Your task to perform on an android device: open app "PUBG MOBILE" (install if not already installed) Image 0: 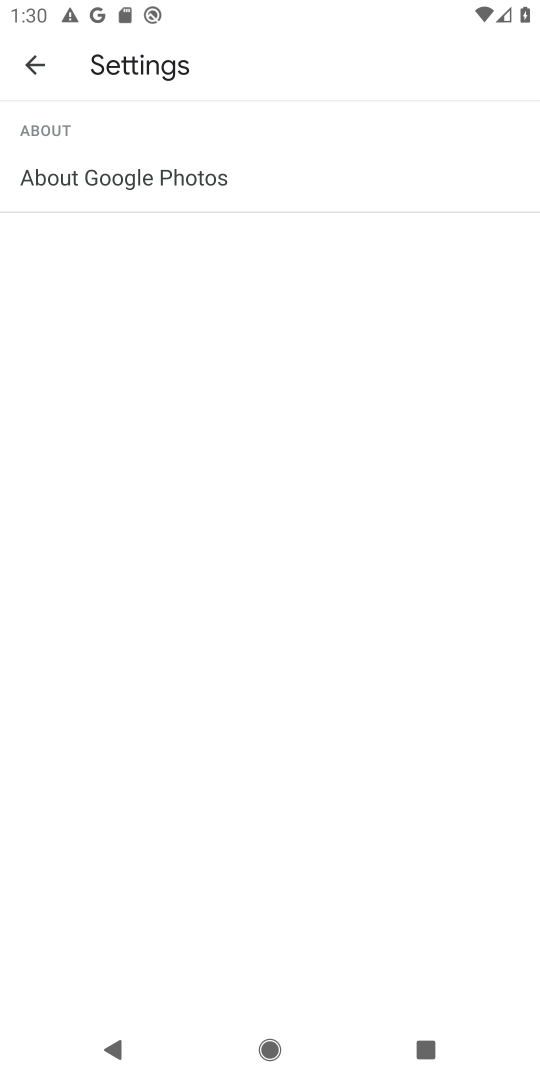
Step 0: press home button
Your task to perform on an android device: open app "PUBG MOBILE" (install if not already installed) Image 1: 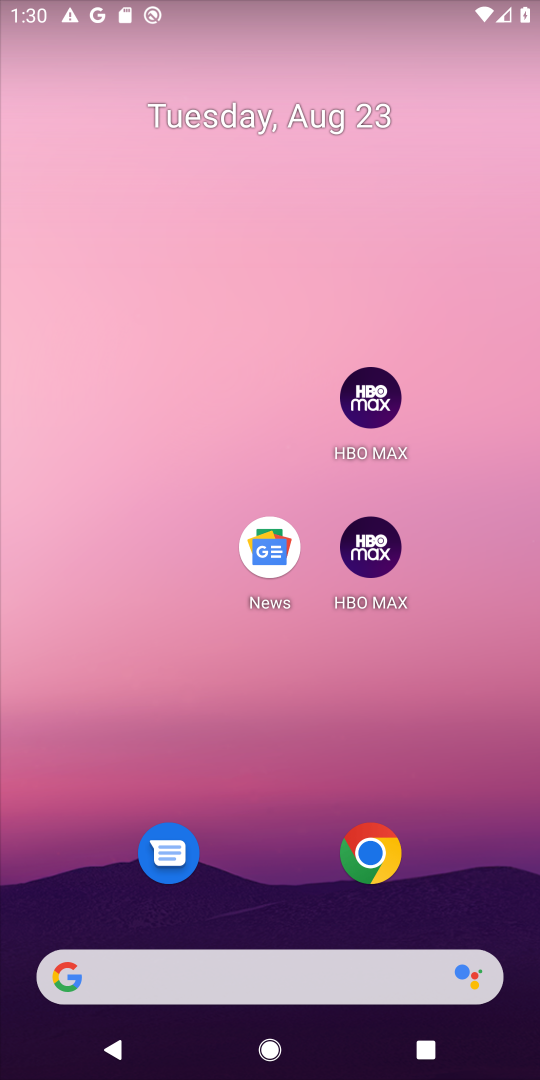
Step 1: drag from (518, 951) to (483, 221)
Your task to perform on an android device: open app "PUBG MOBILE" (install if not already installed) Image 2: 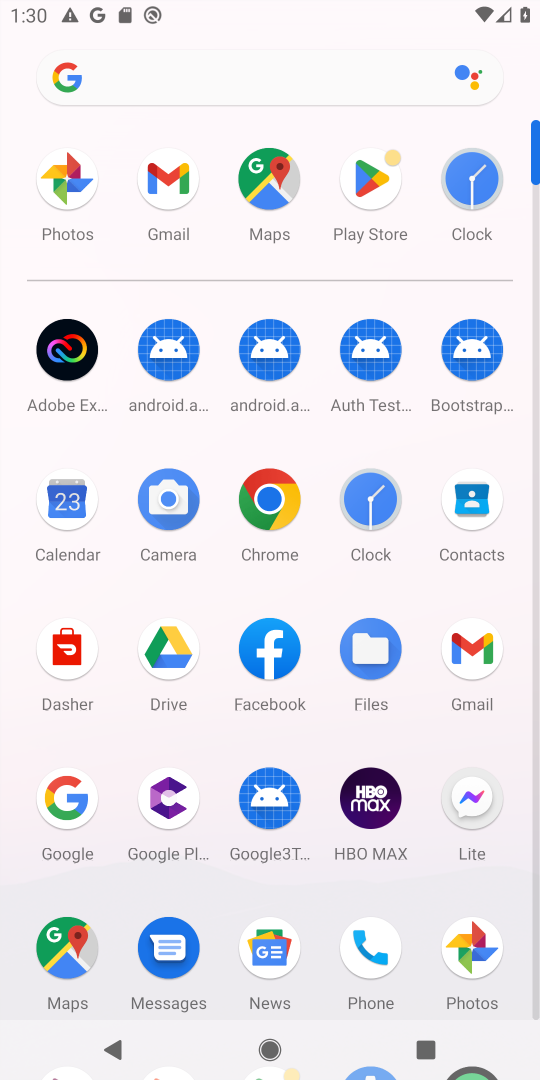
Step 2: click (538, 999)
Your task to perform on an android device: open app "PUBG MOBILE" (install if not already installed) Image 3: 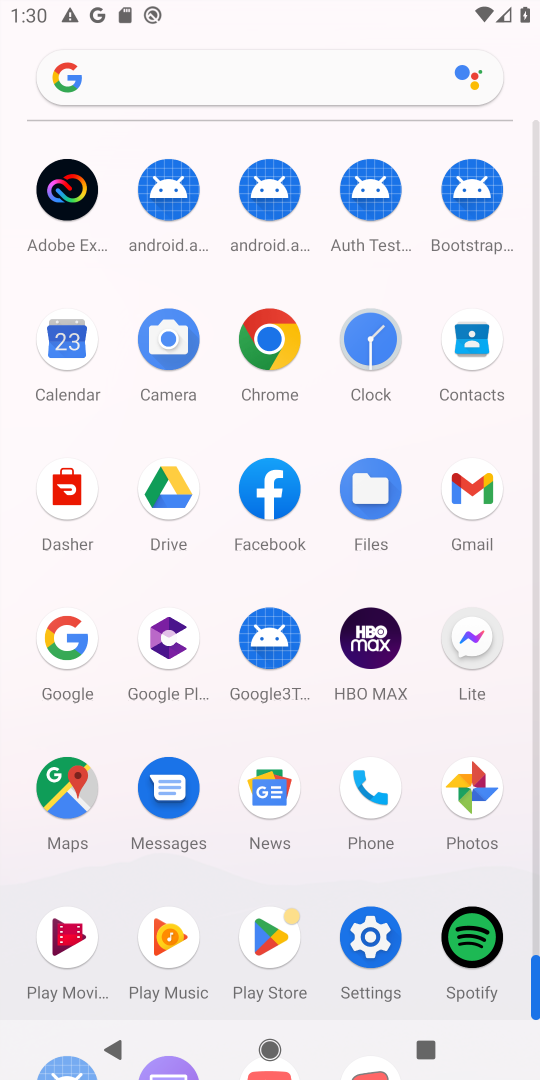
Step 3: click (274, 933)
Your task to perform on an android device: open app "PUBG MOBILE" (install if not already installed) Image 4: 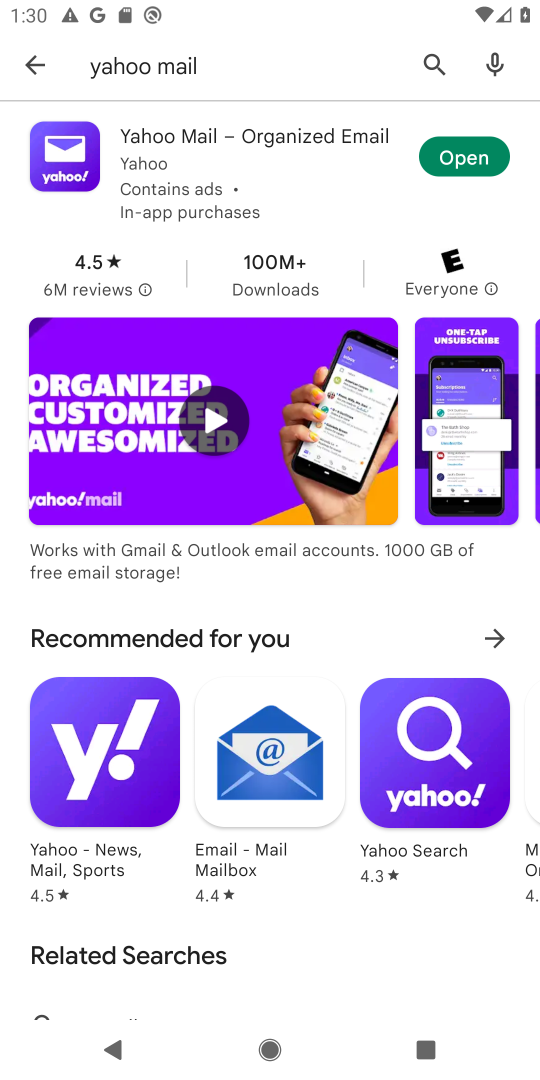
Step 4: click (434, 60)
Your task to perform on an android device: open app "PUBG MOBILE" (install if not already installed) Image 5: 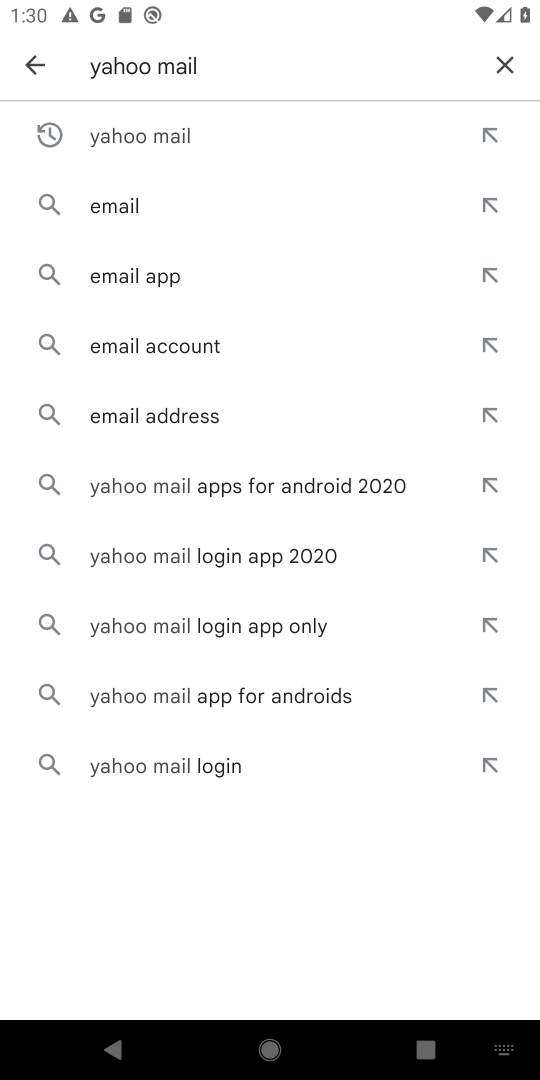
Step 5: click (502, 61)
Your task to perform on an android device: open app "PUBG MOBILE" (install if not already installed) Image 6: 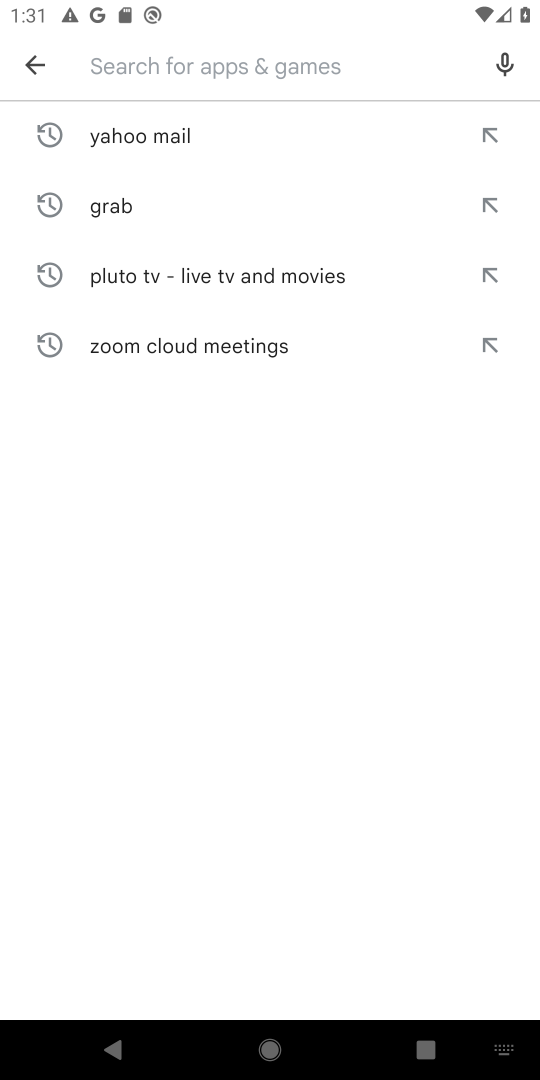
Step 6: type "PUBG MOBILE"
Your task to perform on an android device: open app "PUBG MOBILE" (install if not already installed) Image 7: 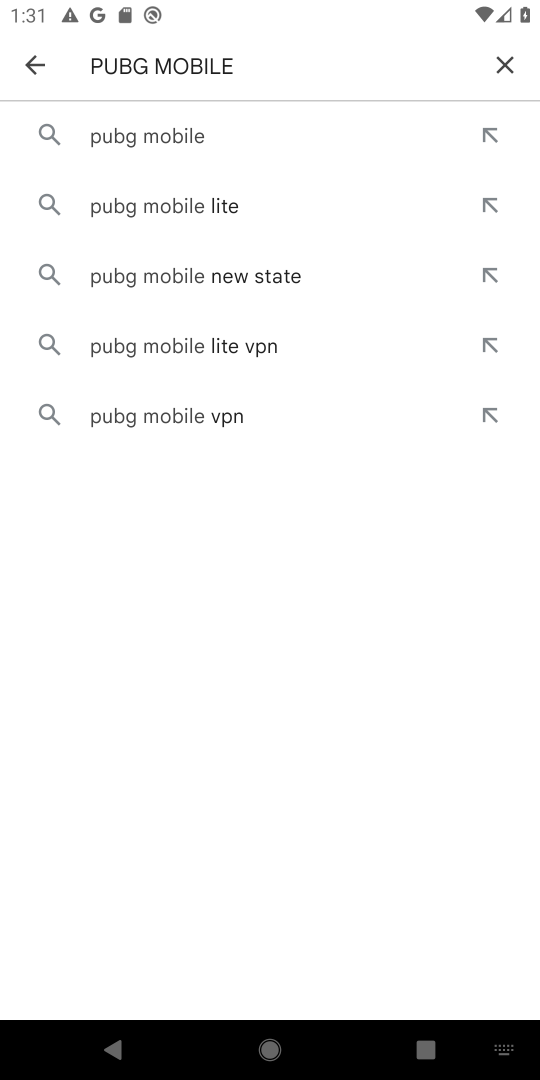
Step 7: click (150, 127)
Your task to perform on an android device: open app "PUBG MOBILE" (install if not already installed) Image 8: 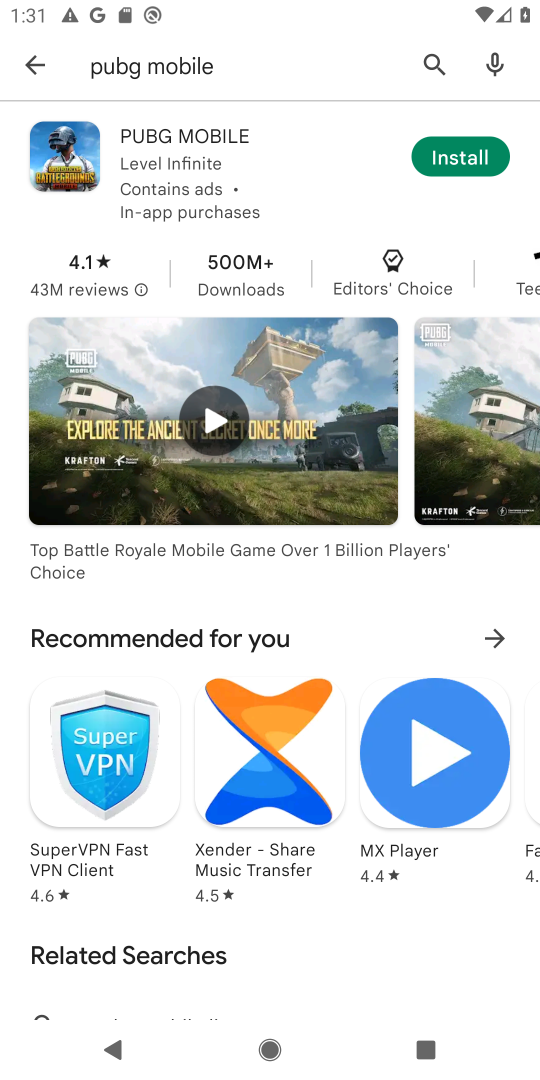
Step 8: click (463, 157)
Your task to perform on an android device: open app "PUBG MOBILE" (install if not already installed) Image 9: 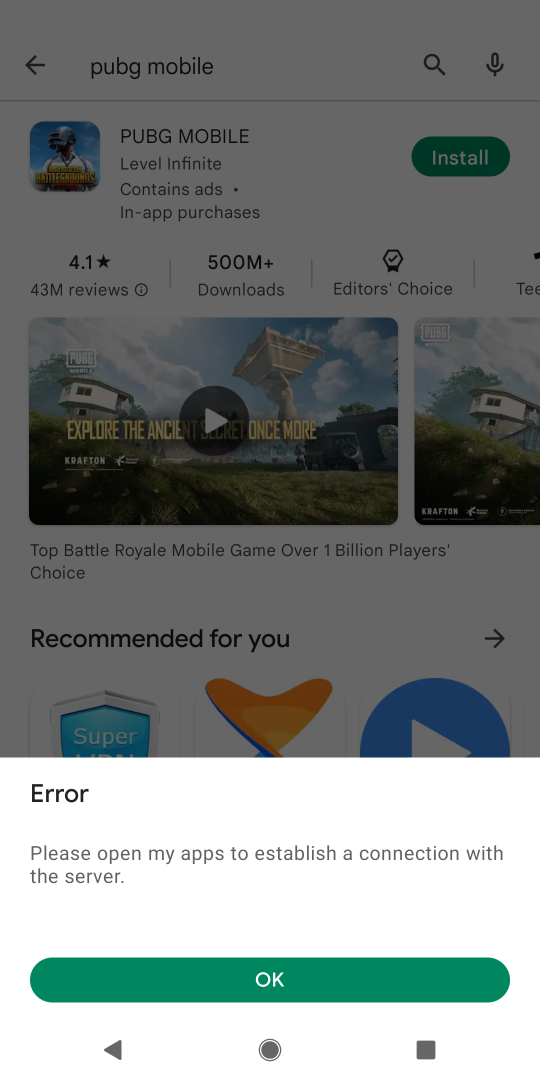
Step 9: click (274, 979)
Your task to perform on an android device: open app "PUBG MOBILE" (install if not already installed) Image 10: 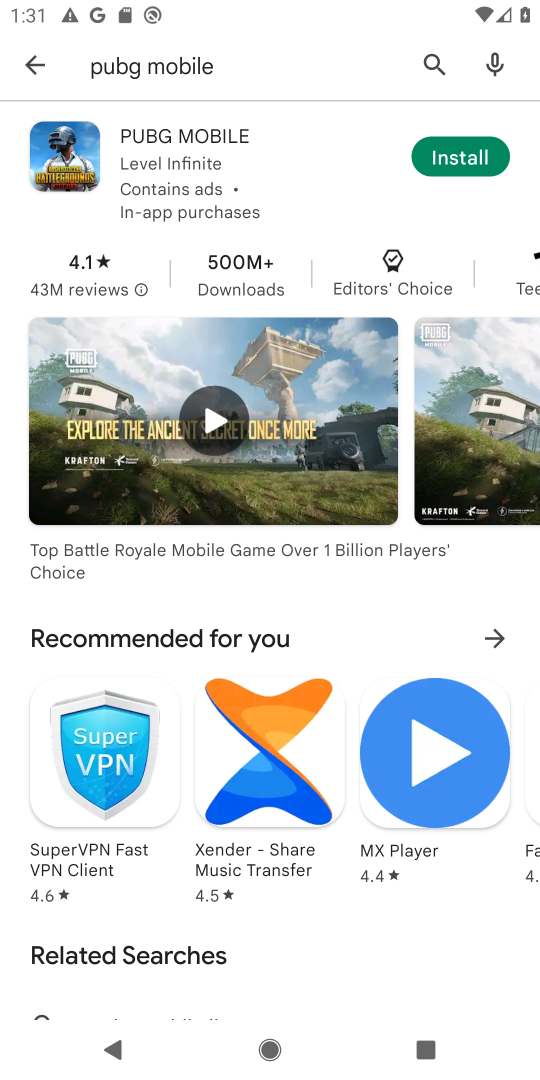
Step 10: task complete